Your task to perform on an android device: change the clock display to digital Image 0: 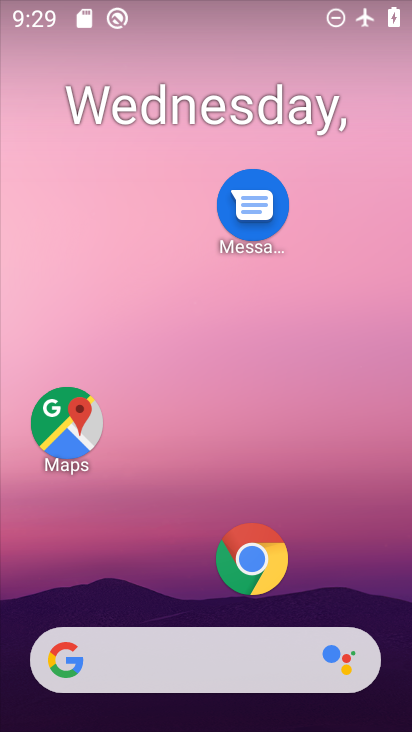
Step 0: drag from (112, 570) to (96, 178)
Your task to perform on an android device: change the clock display to digital Image 1: 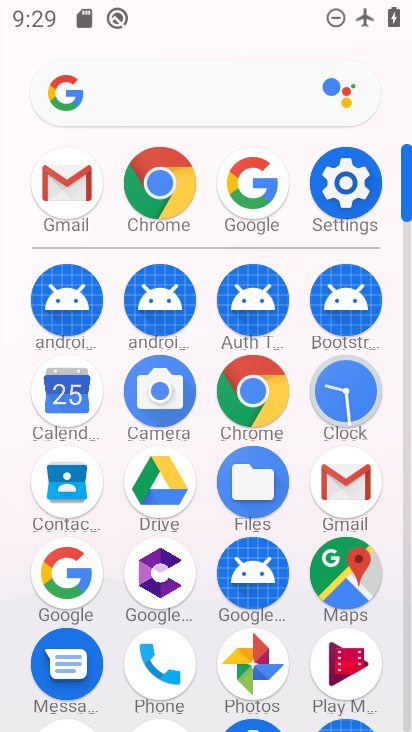
Step 1: click (351, 378)
Your task to perform on an android device: change the clock display to digital Image 2: 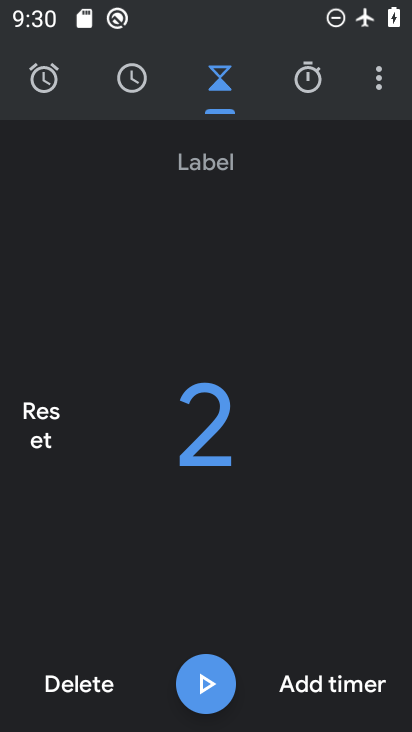
Step 2: click (378, 93)
Your task to perform on an android device: change the clock display to digital Image 3: 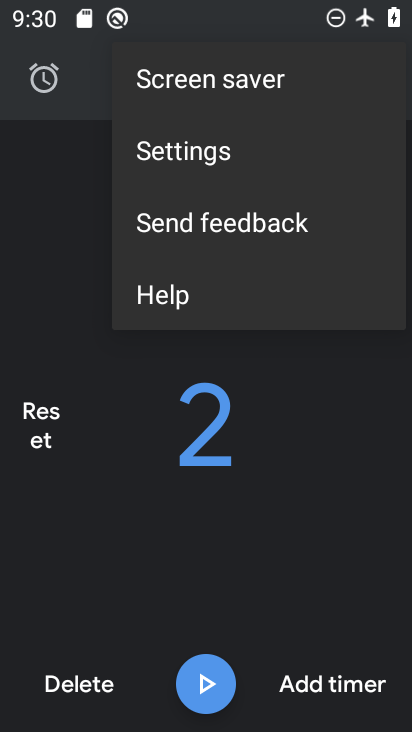
Step 3: click (173, 162)
Your task to perform on an android device: change the clock display to digital Image 4: 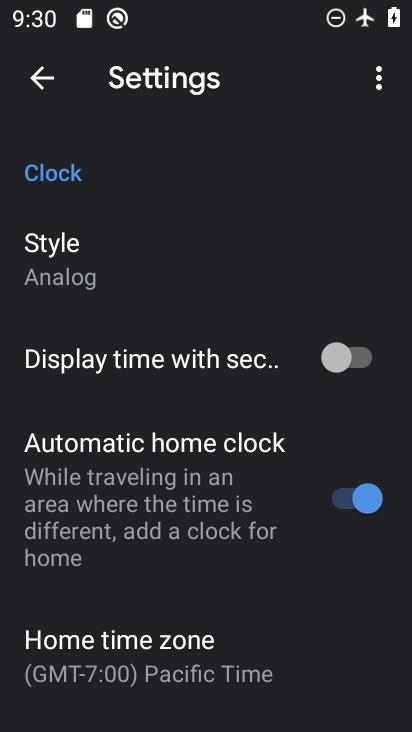
Step 4: click (80, 262)
Your task to perform on an android device: change the clock display to digital Image 5: 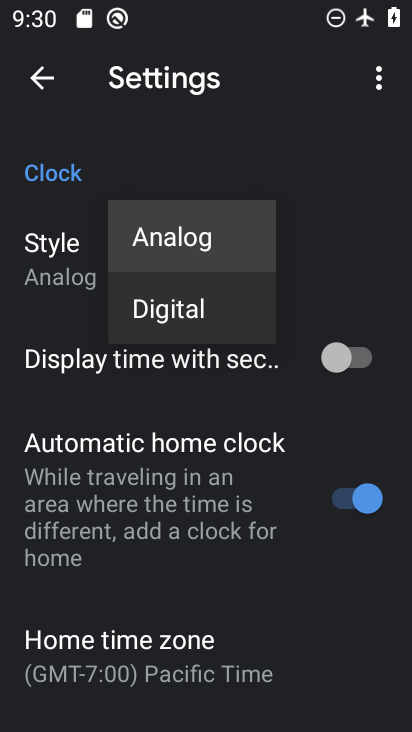
Step 5: click (197, 310)
Your task to perform on an android device: change the clock display to digital Image 6: 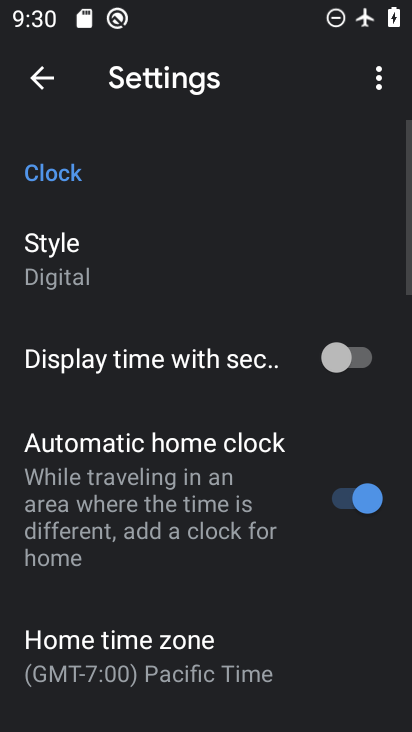
Step 6: task complete